Your task to perform on an android device: Search for Mexican restaurants on Maps Image 0: 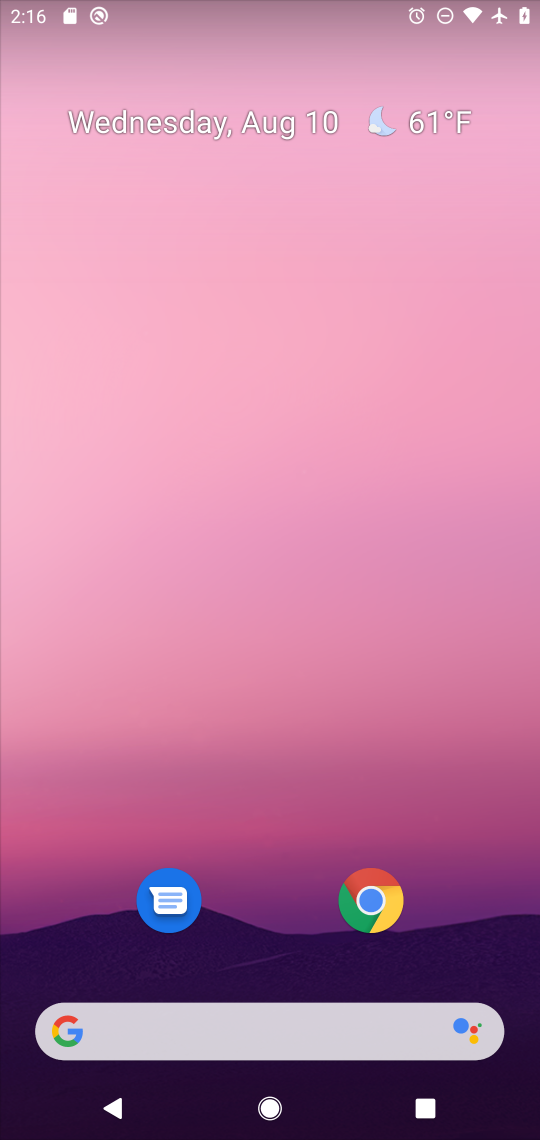
Step 0: drag from (298, 881) to (299, 47)
Your task to perform on an android device: Search for Mexican restaurants on Maps Image 1: 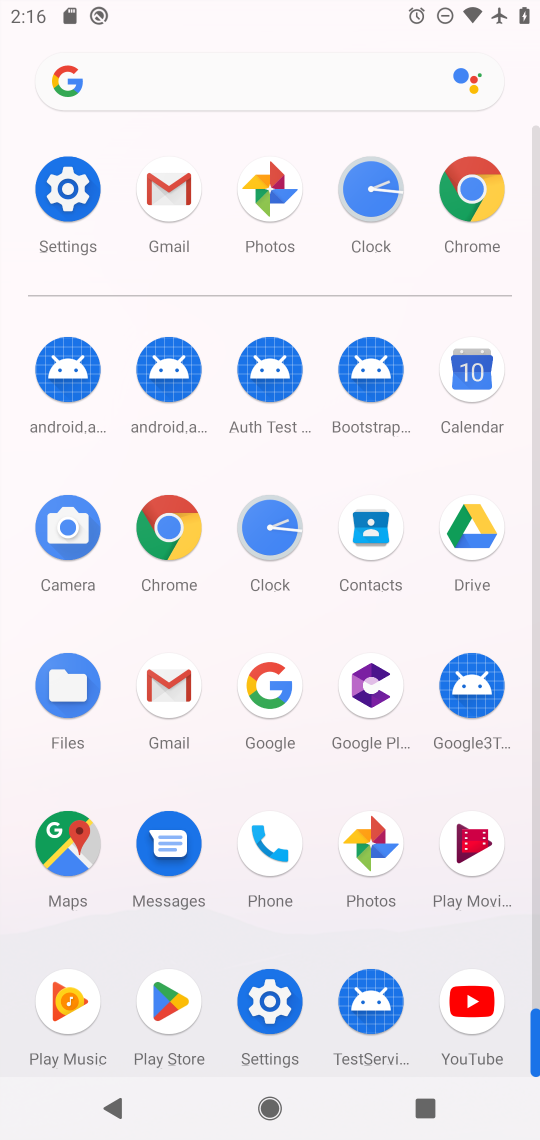
Step 1: click (75, 842)
Your task to perform on an android device: Search for Mexican restaurants on Maps Image 2: 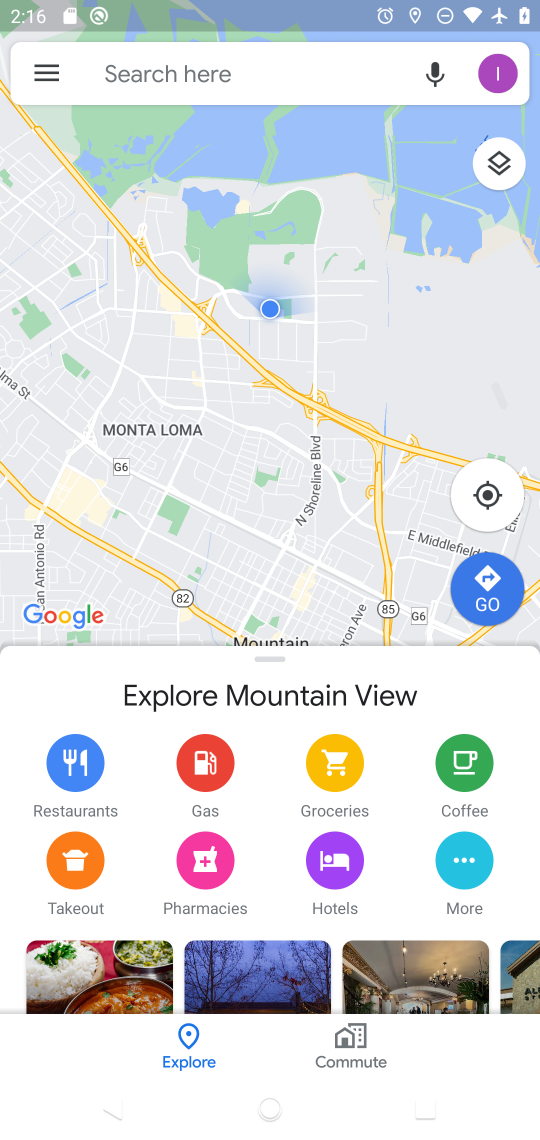
Step 2: click (332, 78)
Your task to perform on an android device: Search for Mexican restaurants on Maps Image 3: 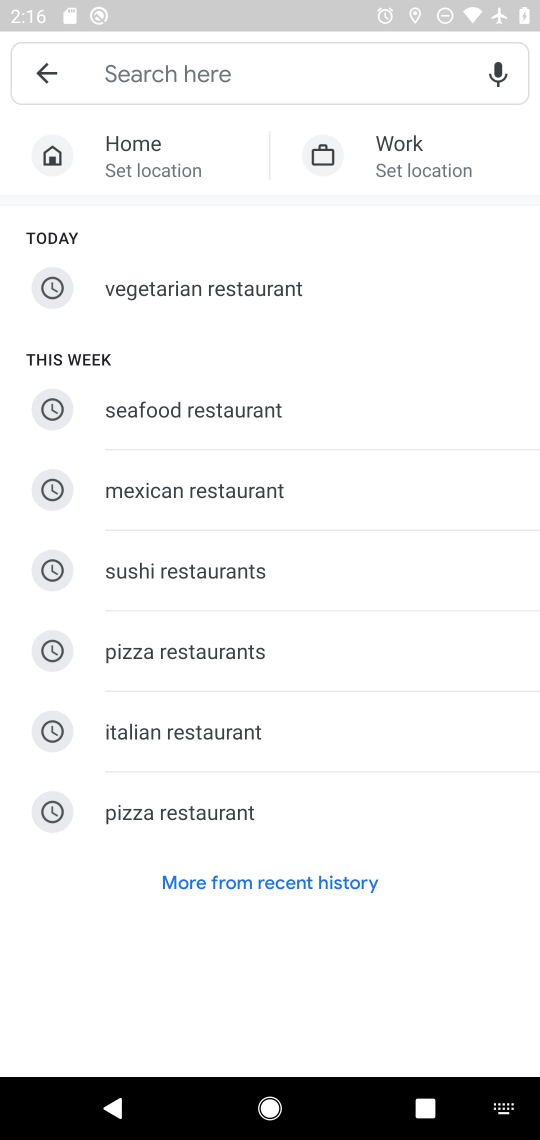
Step 3: click (255, 491)
Your task to perform on an android device: Search for Mexican restaurants on Maps Image 4: 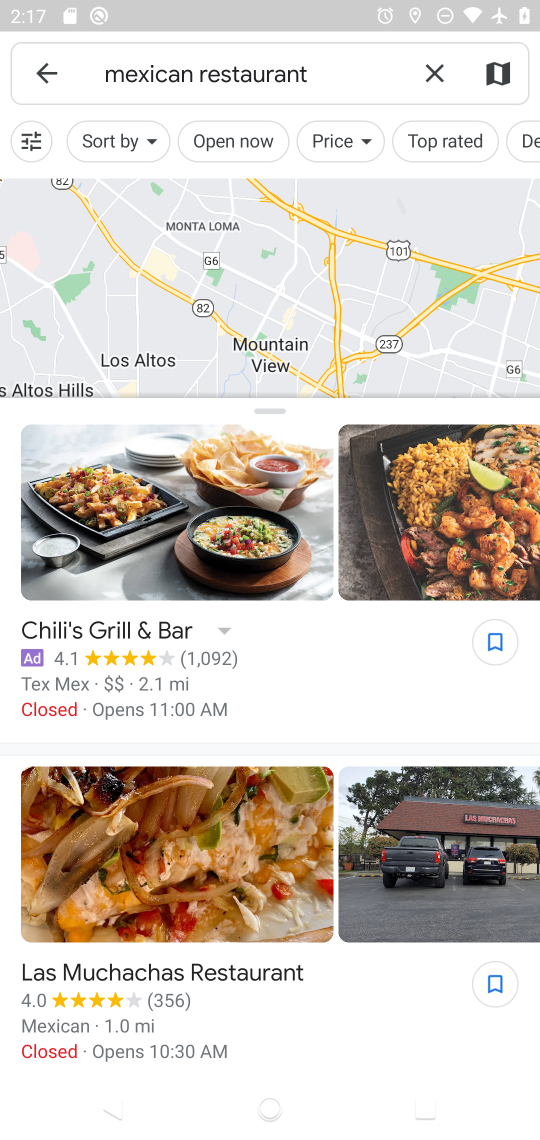
Step 4: click (182, 580)
Your task to perform on an android device: Search for Mexican restaurants on Maps Image 5: 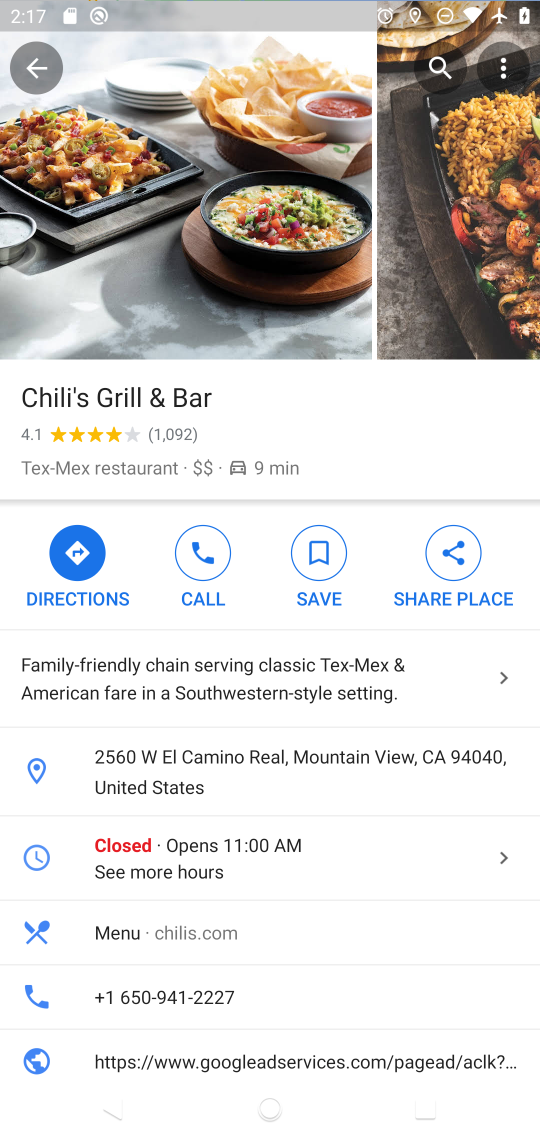
Step 5: task complete